Your task to perform on an android device: search for starred emails in the gmail app Image 0: 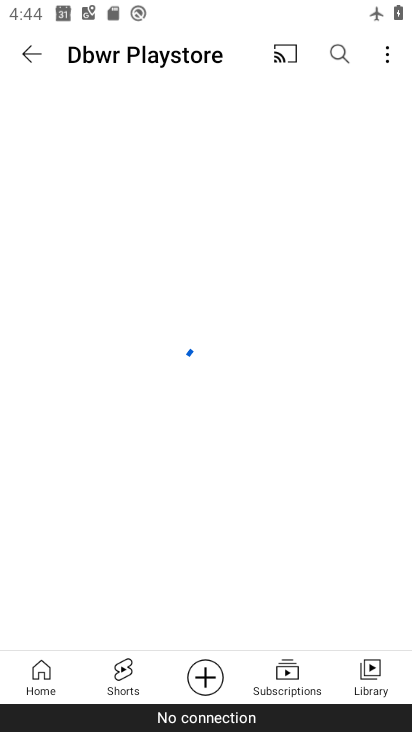
Step 0: press home button
Your task to perform on an android device: search for starred emails in the gmail app Image 1: 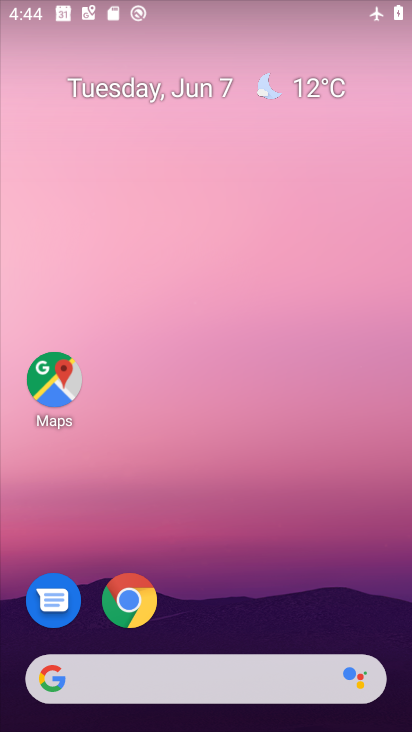
Step 1: drag from (331, 646) to (328, 229)
Your task to perform on an android device: search for starred emails in the gmail app Image 2: 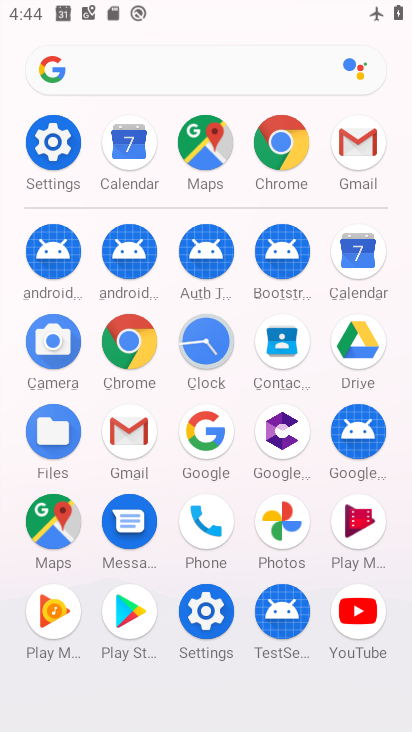
Step 2: click (372, 146)
Your task to perform on an android device: search for starred emails in the gmail app Image 3: 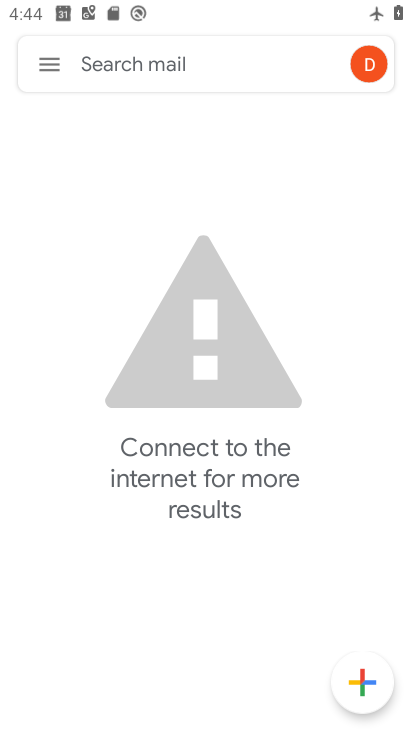
Step 3: click (53, 64)
Your task to perform on an android device: search for starred emails in the gmail app Image 4: 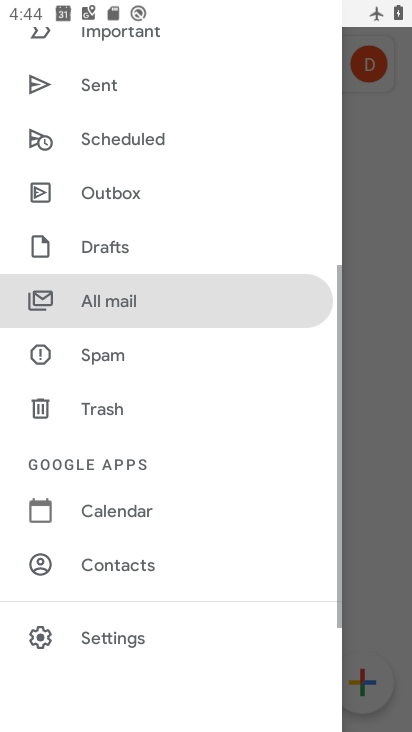
Step 4: drag from (135, 144) to (151, 540)
Your task to perform on an android device: search for starred emails in the gmail app Image 5: 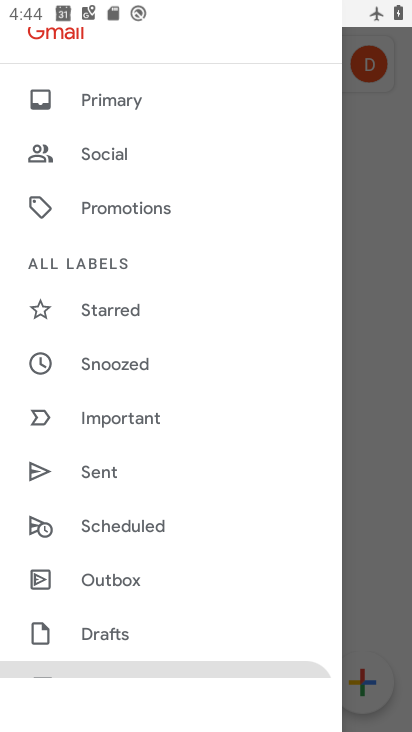
Step 5: click (112, 288)
Your task to perform on an android device: search for starred emails in the gmail app Image 6: 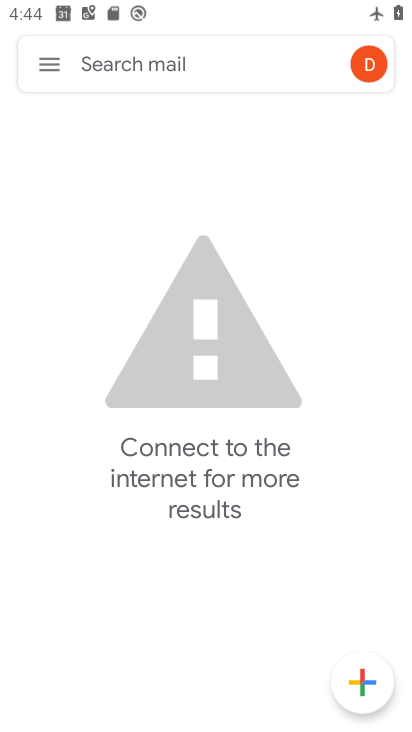
Step 6: task complete